Your task to perform on an android device: Clear the shopping cart on walmart.com. Search for "usb-a to usb-b" on walmart.com, select the first entry, add it to the cart, then select checkout. Image 0: 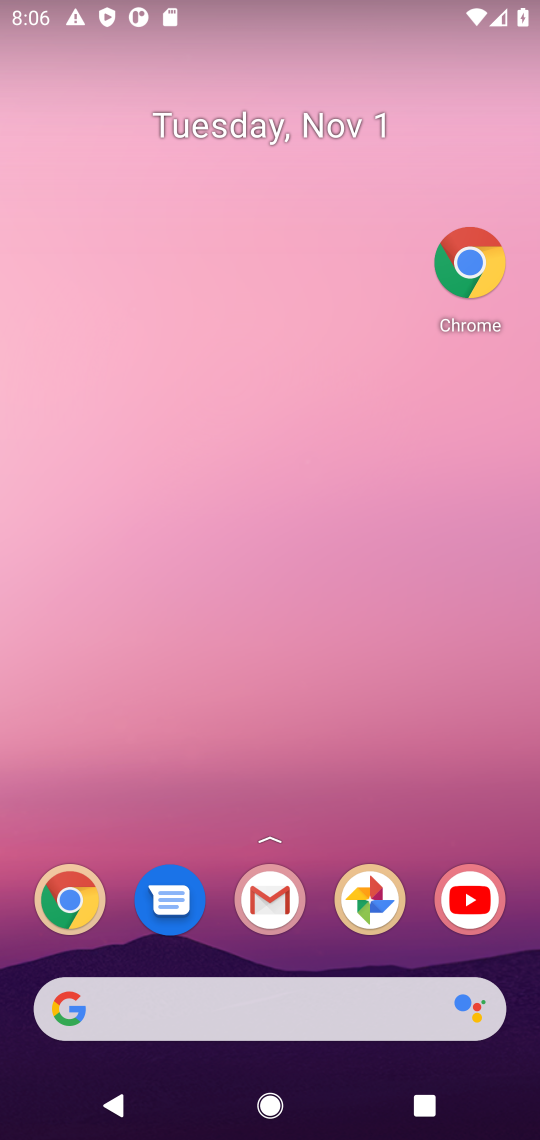
Step 0: drag from (320, 925) to (290, 323)
Your task to perform on an android device: Clear the shopping cart on walmart.com. Search for "usb-a to usb-b" on walmart.com, select the first entry, add it to the cart, then select checkout. Image 1: 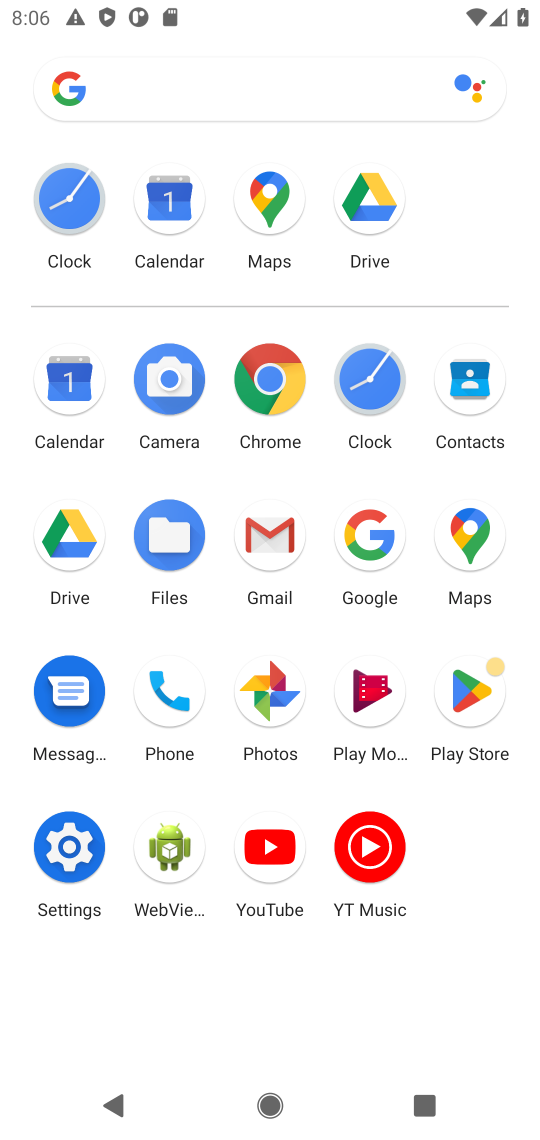
Step 1: click (275, 381)
Your task to perform on an android device: Clear the shopping cart on walmart.com. Search for "usb-a to usb-b" on walmart.com, select the first entry, add it to the cart, then select checkout. Image 2: 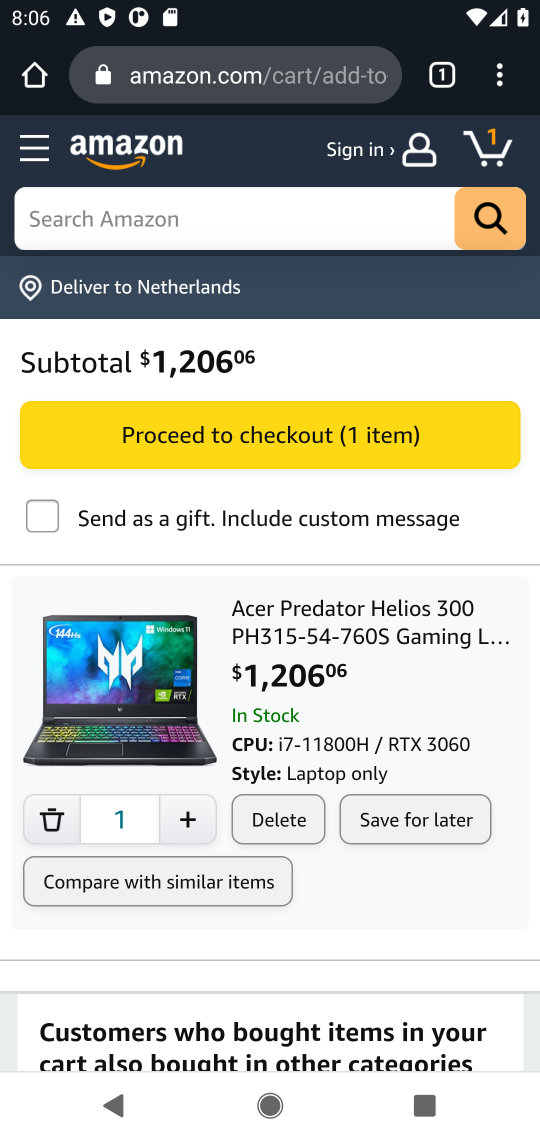
Step 2: click (291, 86)
Your task to perform on an android device: Clear the shopping cart on walmart.com. Search for "usb-a to usb-b" on walmart.com, select the first entry, add it to the cart, then select checkout. Image 3: 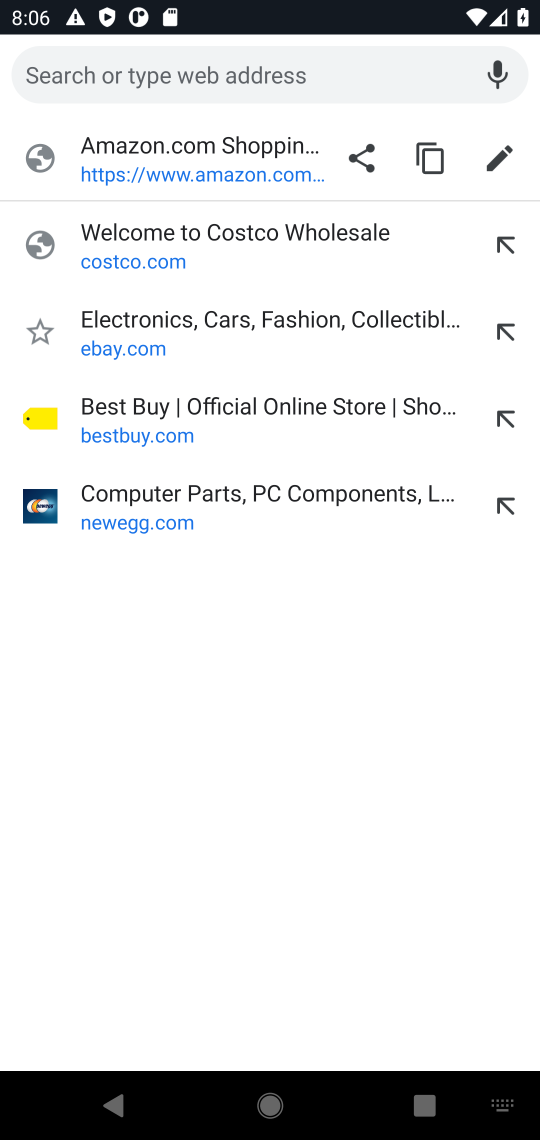
Step 3: type "walmart.com"
Your task to perform on an android device: Clear the shopping cart on walmart.com. Search for "usb-a to usb-b" on walmart.com, select the first entry, add it to the cart, then select checkout. Image 4: 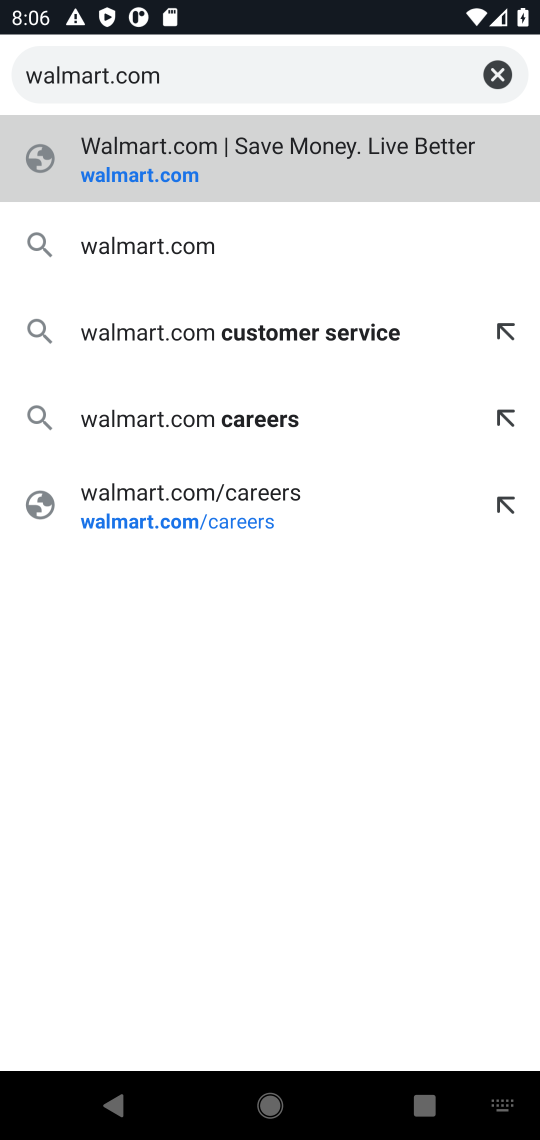
Step 4: press enter
Your task to perform on an android device: Clear the shopping cart on walmart.com. Search for "usb-a to usb-b" on walmart.com, select the first entry, add it to the cart, then select checkout. Image 5: 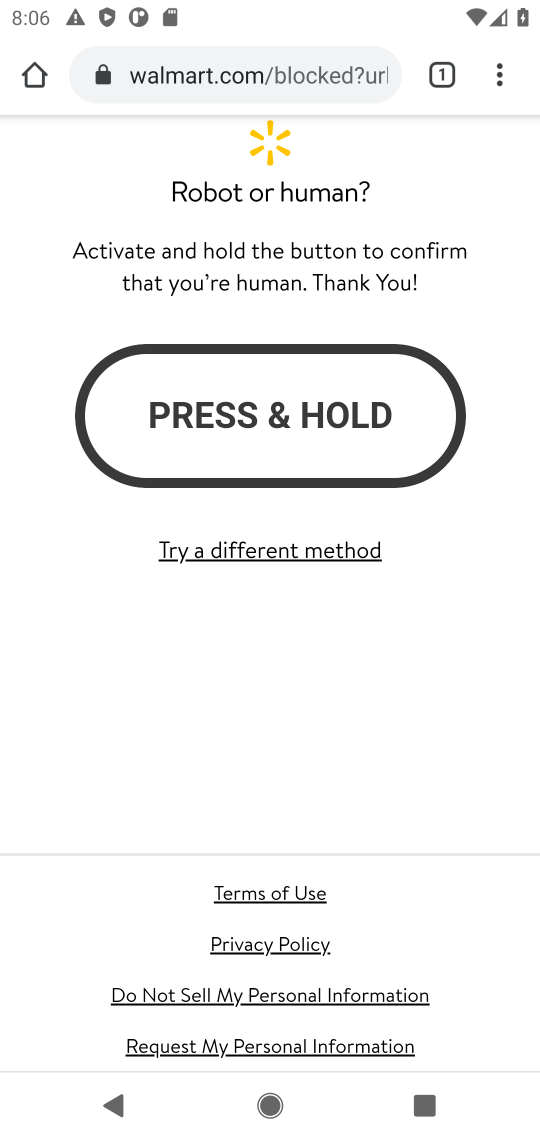
Step 5: click (351, 432)
Your task to perform on an android device: Clear the shopping cart on walmart.com. Search for "usb-a to usb-b" on walmart.com, select the first entry, add it to the cart, then select checkout. Image 6: 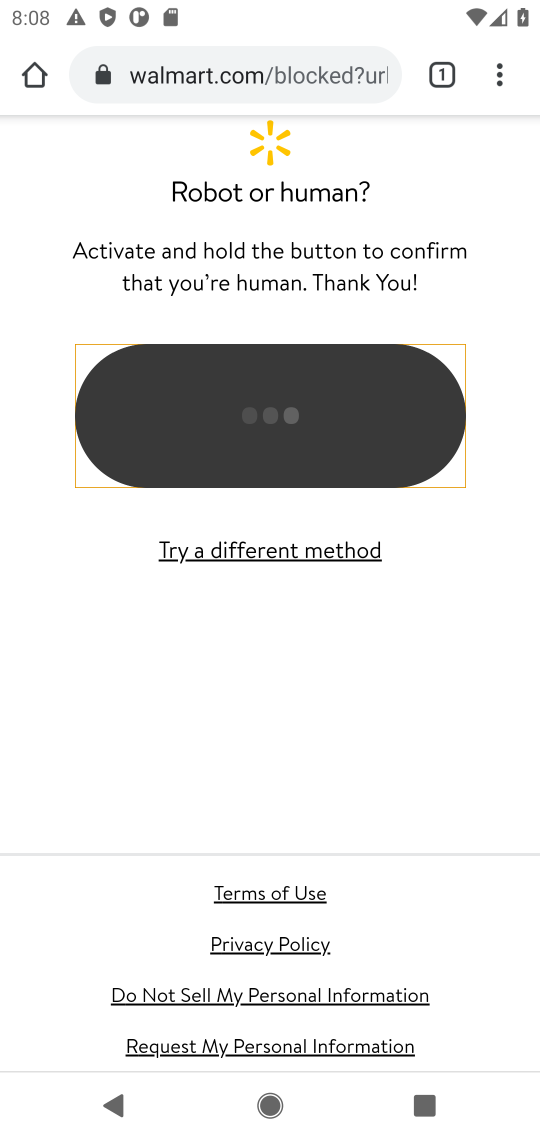
Step 6: click (228, 86)
Your task to perform on an android device: Clear the shopping cart on walmart.com. Search for "usb-a to usb-b" on walmart.com, select the first entry, add it to the cart, then select checkout. Image 7: 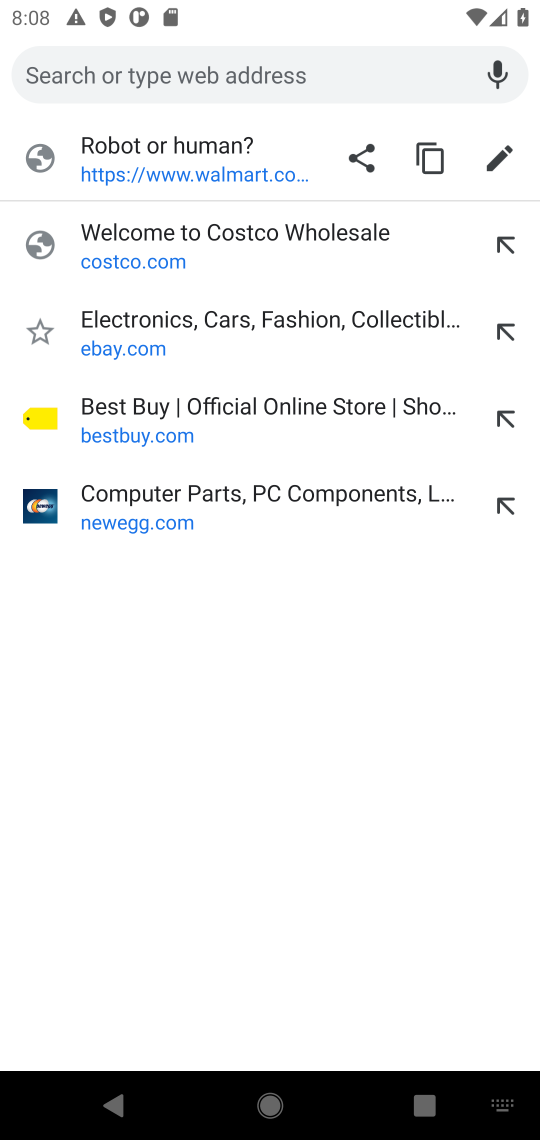
Step 7: task complete